Your task to perform on an android device: add a contact in the contacts app Image 0: 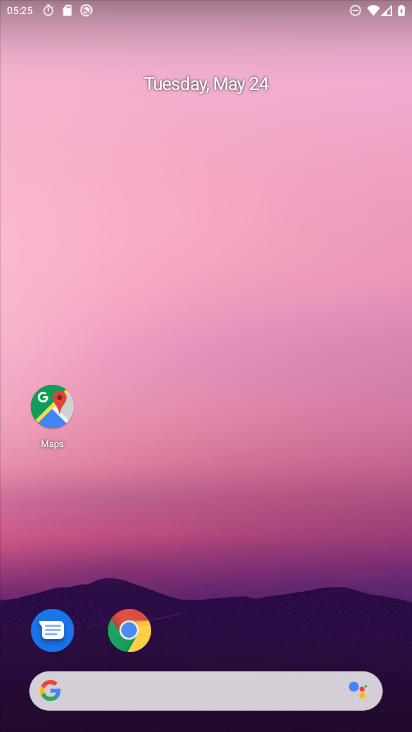
Step 0: drag from (178, 626) to (301, 47)
Your task to perform on an android device: add a contact in the contacts app Image 1: 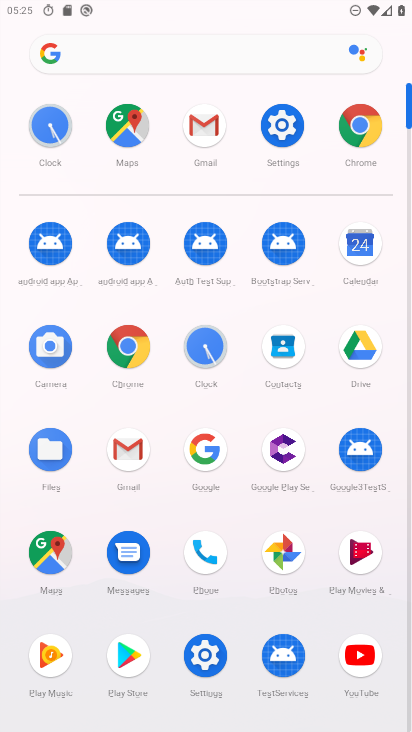
Step 1: click (291, 342)
Your task to perform on an android device: add a contact in the contacts app Image 2: 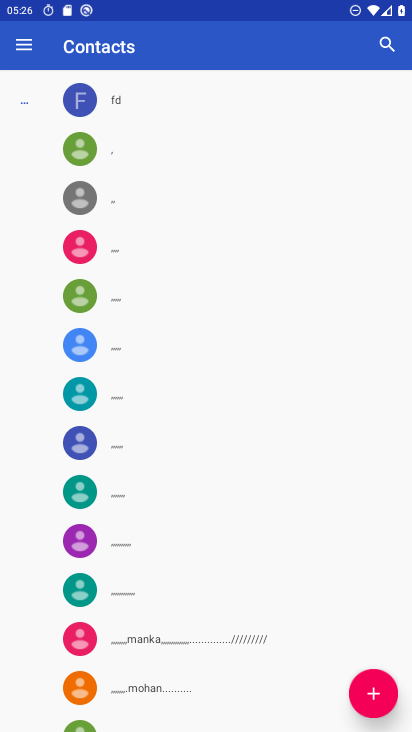
Step 2: click (375, 680)
Your task to perform on an android device: add a contact in the contacts app Image 3: 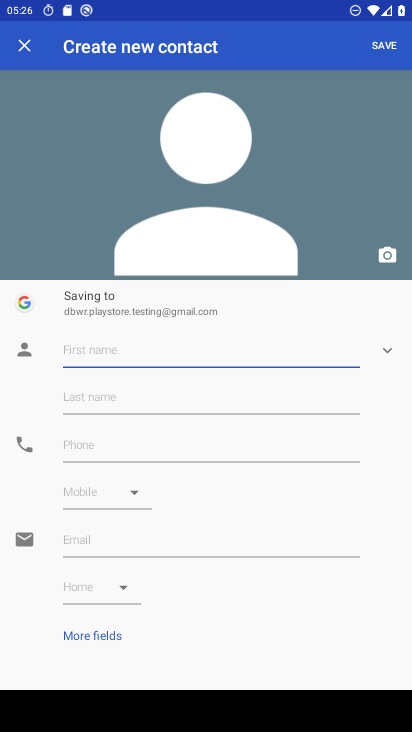
Step 3: type "mnbv"
Your task to perform on an android device: add a contact in the contacts app Image 4: 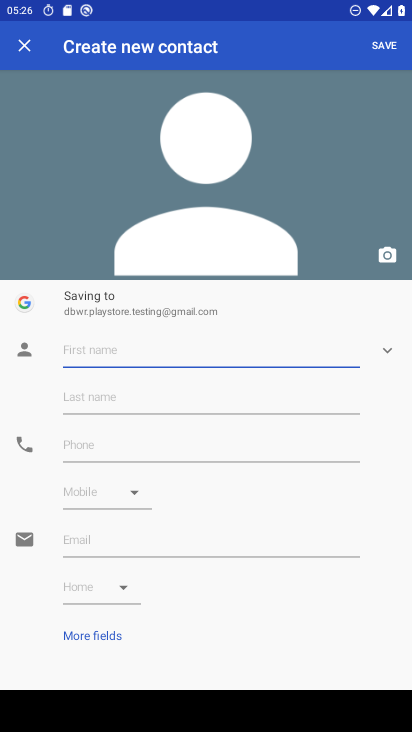
Step 4: click (108, 444)
Your task to perform on an android device: add a contact in the contacts app Image 5: 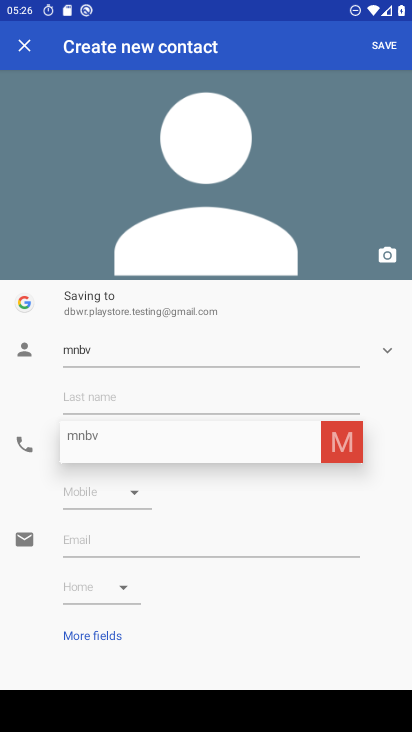
Step 5: type "9876546"
Your task to perform on an android device: add a contact in the contacts app Image 6: 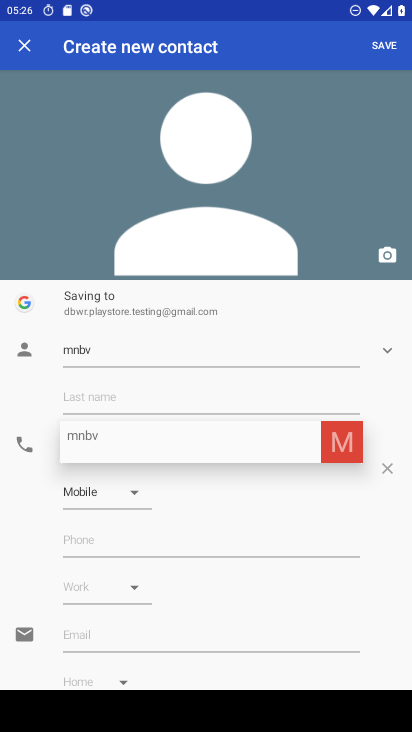
Step 6: click (172, 332)
Your task to perform on an android device: add a contact in the contacts app Image 7: 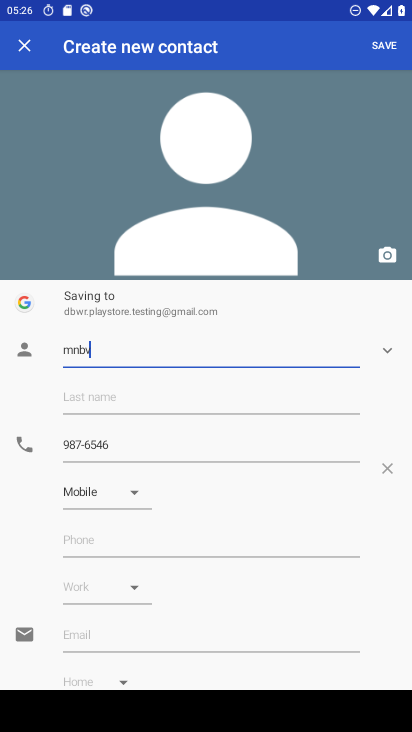
Step 7: type "hgfds"
Your task to perform on an android device: add a contact in the contacts app Image 8: 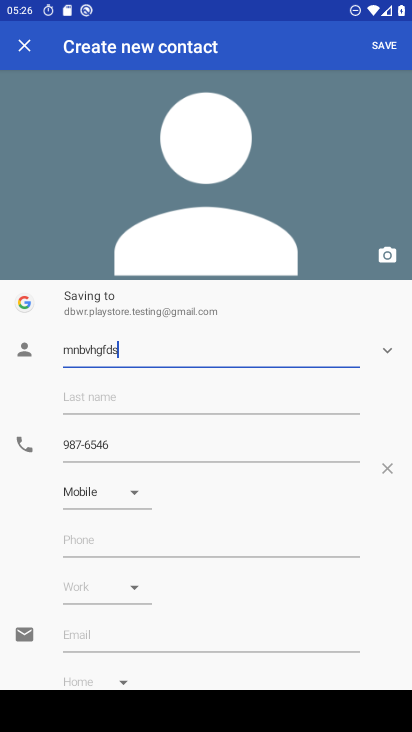
Step 8: click (386, 37)
Your task to perform on an android device: add a contact in the contacts app Image 9: 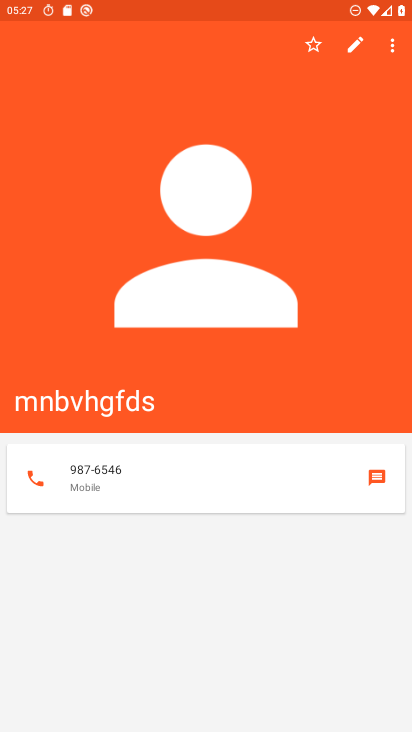
Step 9: task complete